Your task to perform on an android device: toggle translation in the chrome app Image 0: 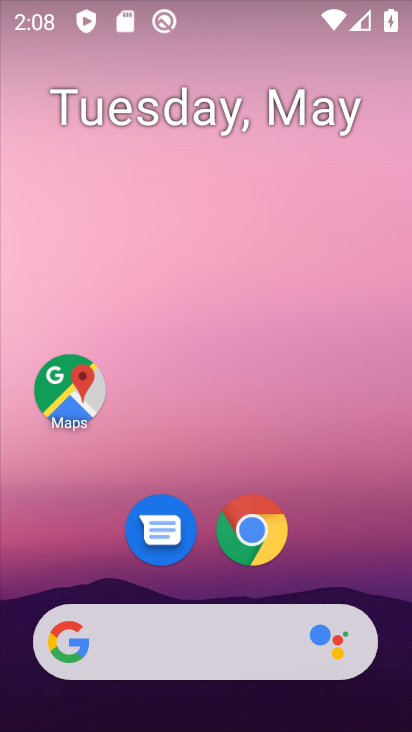
Step 0: click (226, 520)
Your task to perform on an android device: toggle translation in the chrome app Image 1: 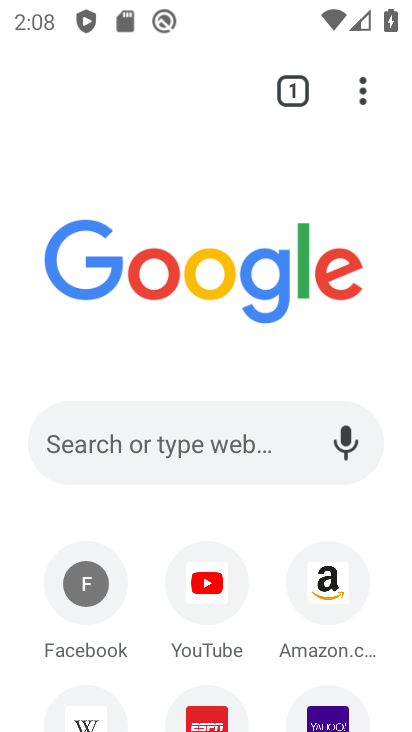
Step 1: click (354, 73)
Your task to perform on an android device: toggle translation in the chrome app Image 2: 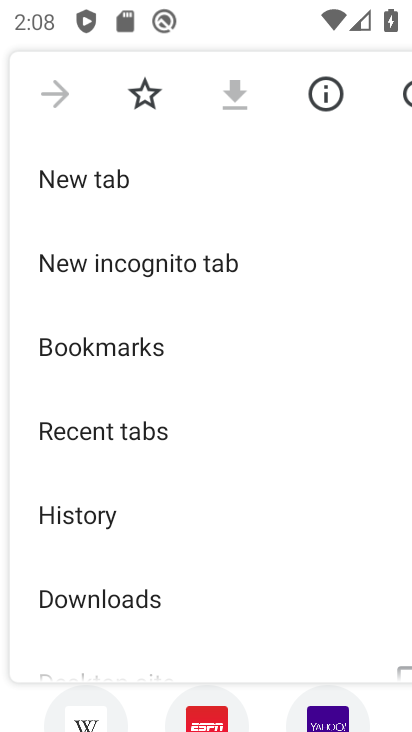
Step 2: drag from (164, 600) to (207, 342)
Your task to perform on an android device: toggle translation in the chrome app Image 3: 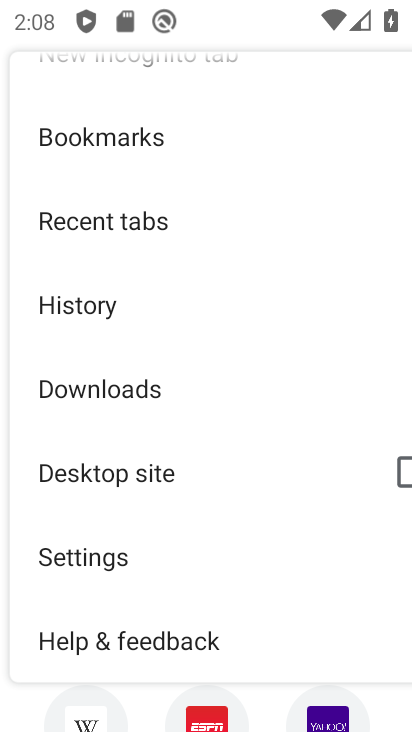
Step 3: click (148, 556)
Your task to perform on an android device: toggle translation in the chrome app Image 4: 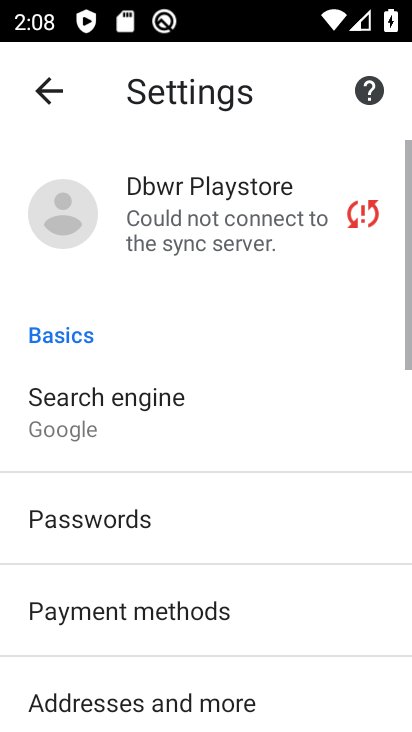
Step 4: drag from (172, 613) to (209, 361)
Your task to perform on an android device: toggle translation in the chrome app Image 5: 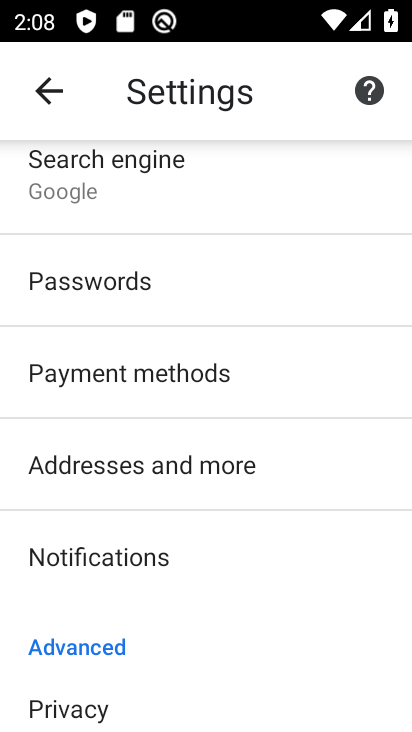
Step 5: drag from (165, 630) to (229, 361)
Your task to perform on an android device: toggle translation in the chrome app Image 6: 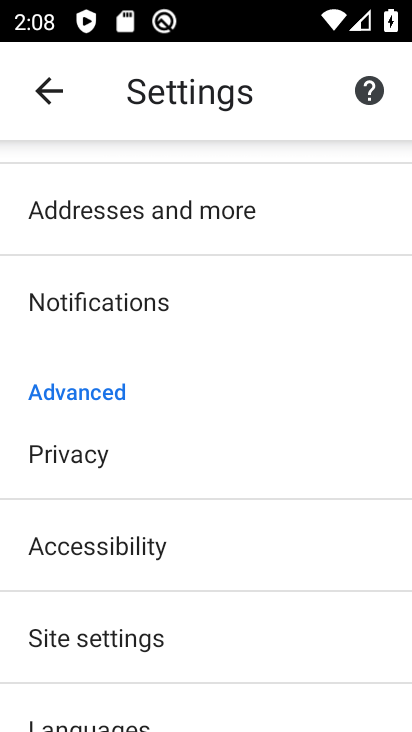
Step 6: drag from (145, 645) to (212, 455)
Your task to perform on an android device: toggle translation in the chrome app Image 7: 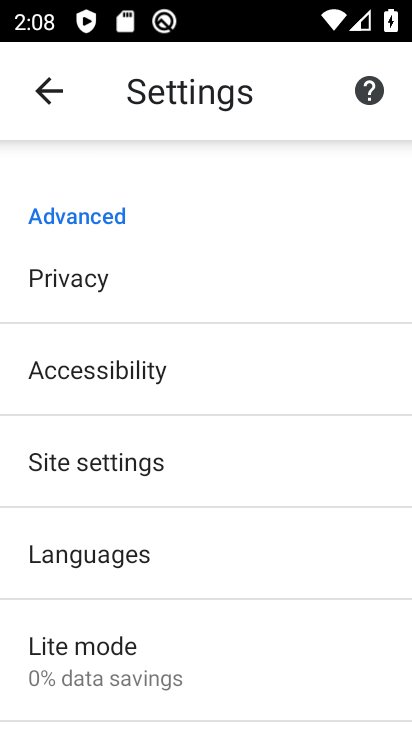
Step 7: click (171, 523)
Your task to perform on an android device: toggle translation in the chrome app Image 8: 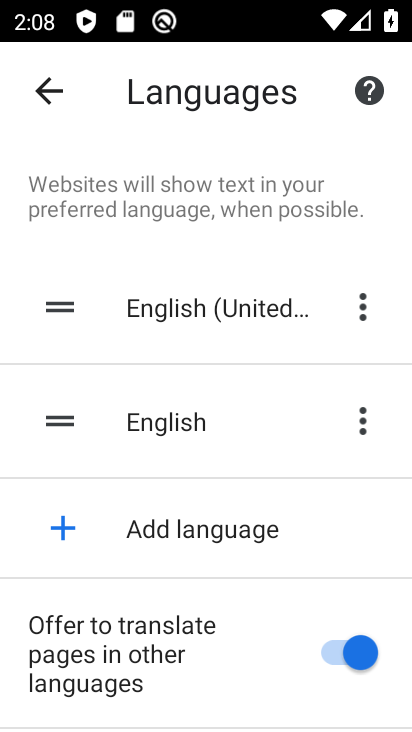
Step 8: click (329, 640)
Your task to perform on an android device: toggle translation in the chrome app Image 9: 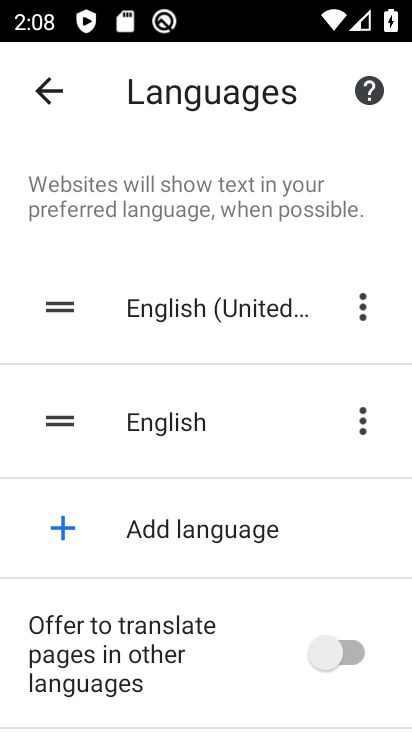
Step 9: task complete